Your task to perform on an android device: Open eBay Image 0: 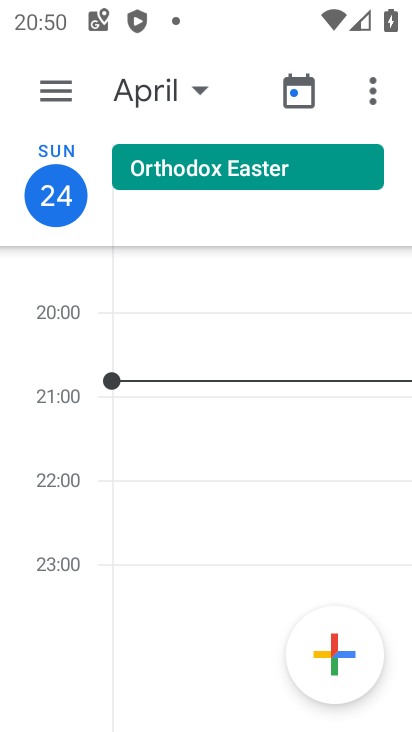
Step 0: press home button
Your task to perform on an android device: Open eBay Image 1: 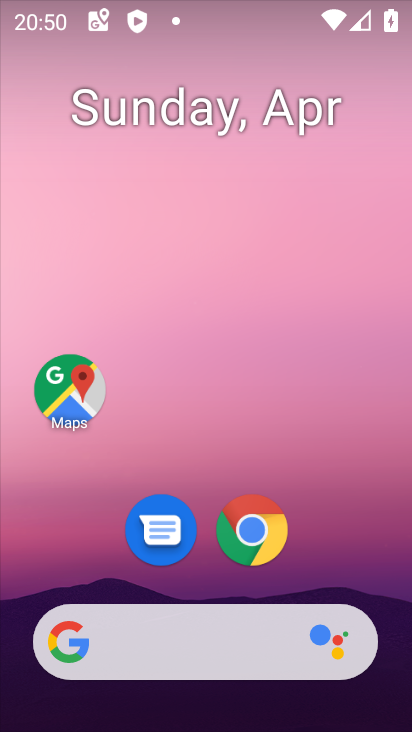
Step 1: click (251, 526)
Your task to perform on an android device: Open eBay Image 2: 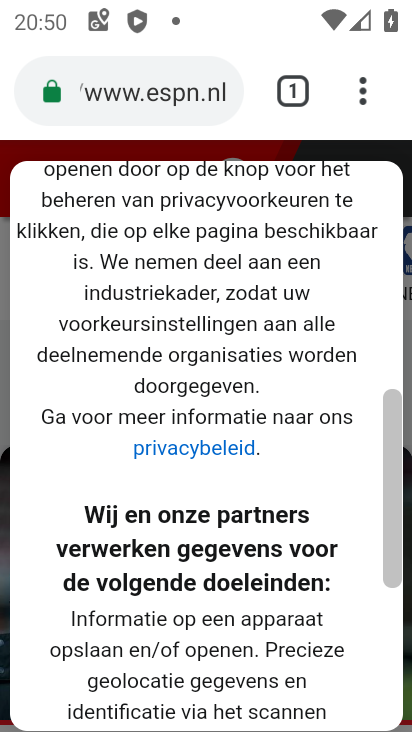
Step 2: click (195, 100)
Your task to perform on an android device: Open eBay Image 3: 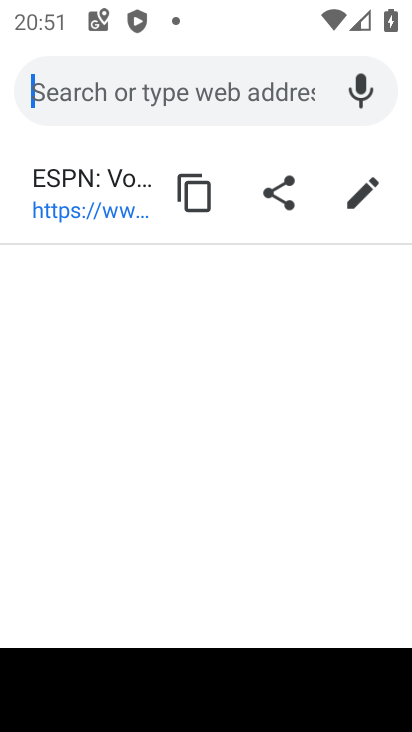
Step 3: type "ebay"
Your task to perform on an android device: Open eBay Image 4: 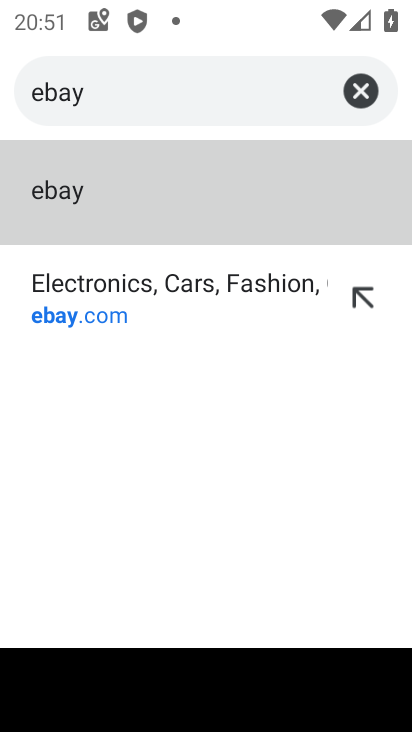
Step 4: click (253, 210)
Your task to perform on an android device: Open eBay Image 5: 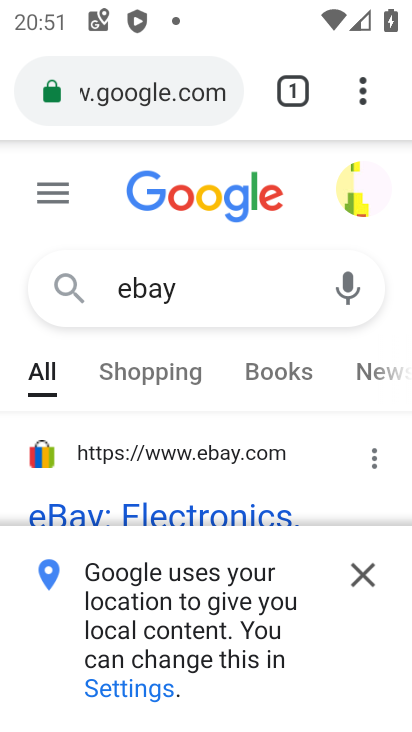
Step 5: click (214, 506)
Your task to perform on an android device: Open eBay Image 6: 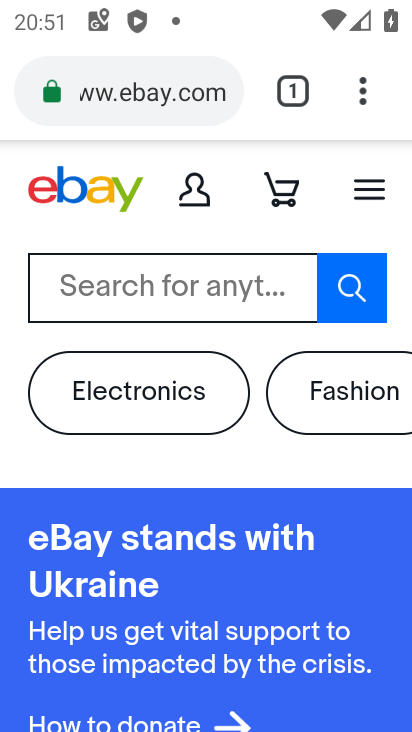
Step 6: task complete